Your task to perform on an android device: see sites visited before in the chrome app Image 0: 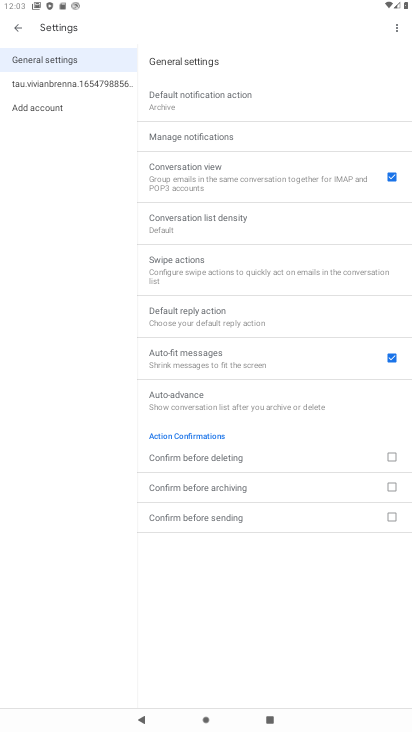
Step 0: press home button
Your task to perform on an android device: see sites visited before in the chrome app Image 1: 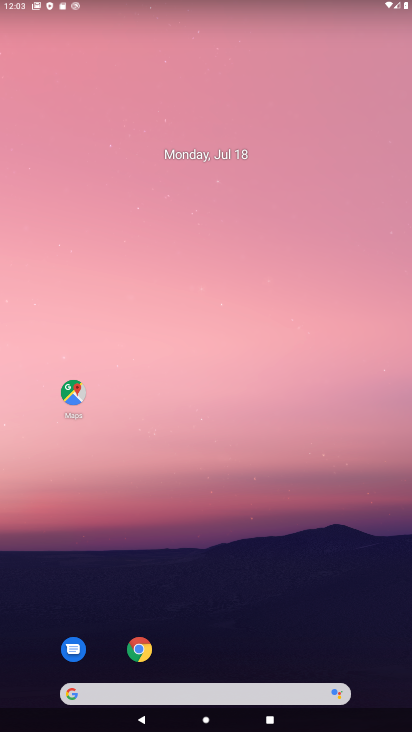
Step 1: click (139, 650)
Your task to perform on an android device: see sites visited before in the chrome app Image 2: 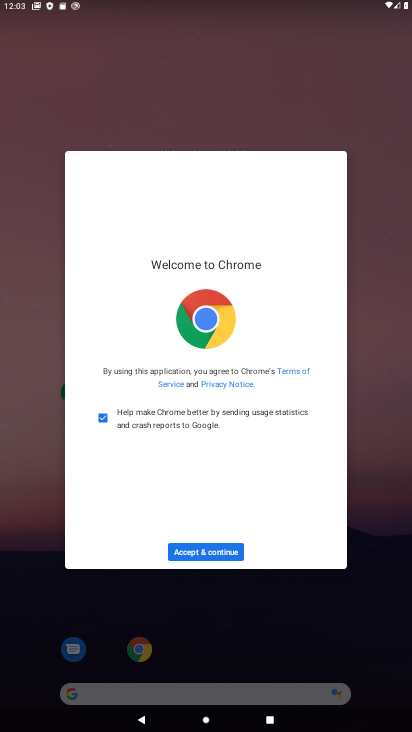
Step 2: click (209, 545)
Your task to perform on an android device: see sites visited before in the chrome app Image 3: 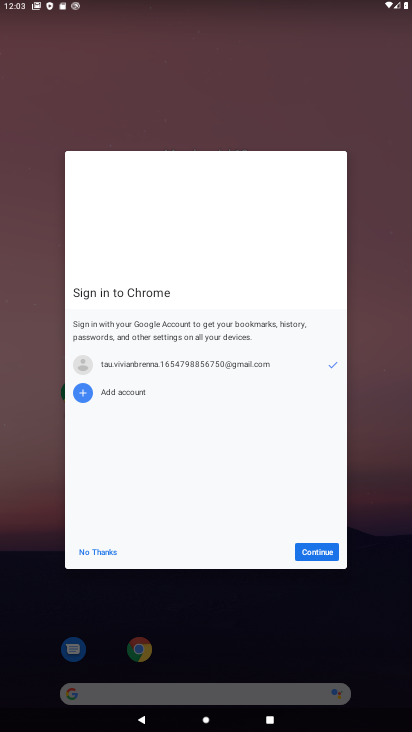
Step 3: click (313, 549)
Your task to perform on an android device: see sites visited before in the chrome app Image 4: 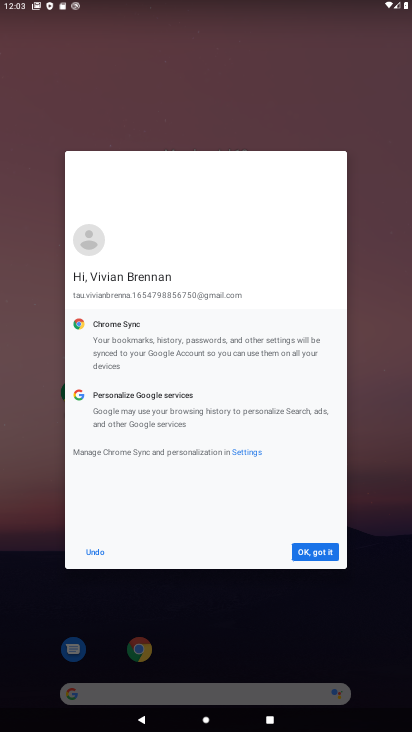
Step 4: click (313, 549)
Your task to perform on an android device: see sites visited before in the chrome app Image 5: 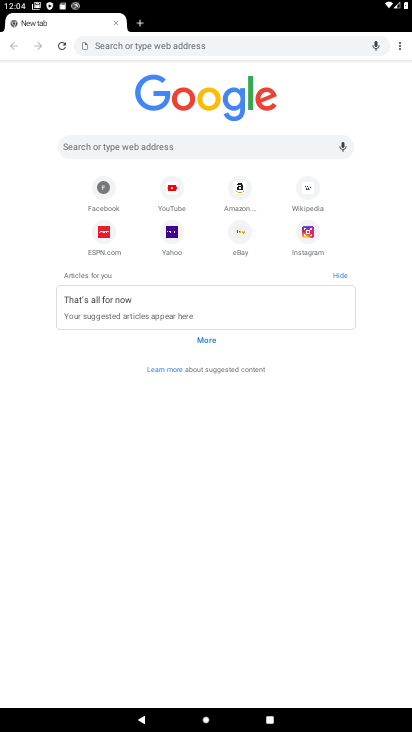
Step 5: click (400, 47)
Your task to perform on an android device: see sites visited before in the chrome app Image 6: 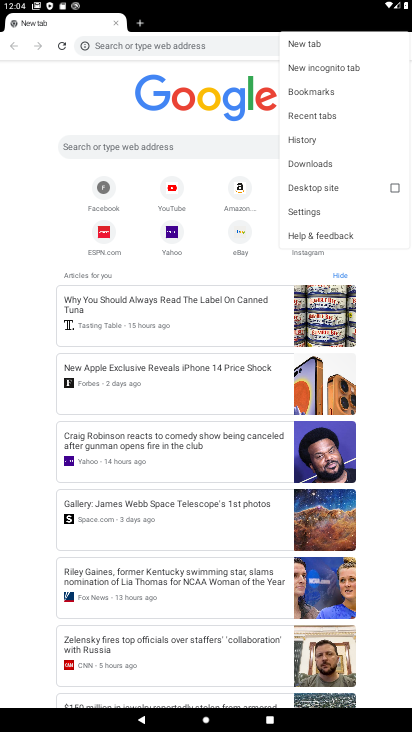
Step 6: click (298, 136)
Your task to perform on an android device: see sites visited before in the chrome app Image 7: 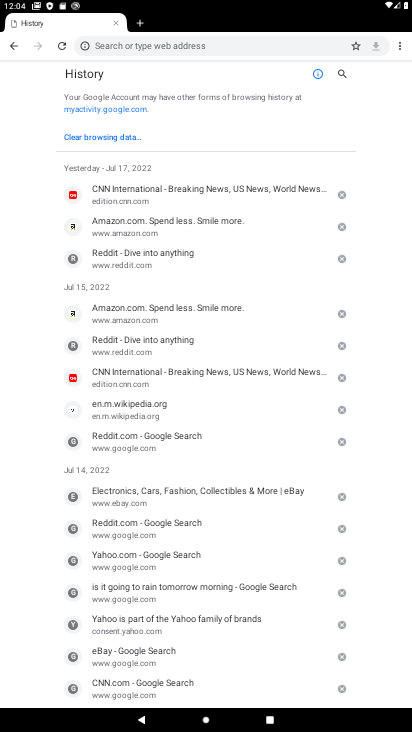
Step 7: task complete